Your task to perform on an android device: Open Yahoo.com Image 0: 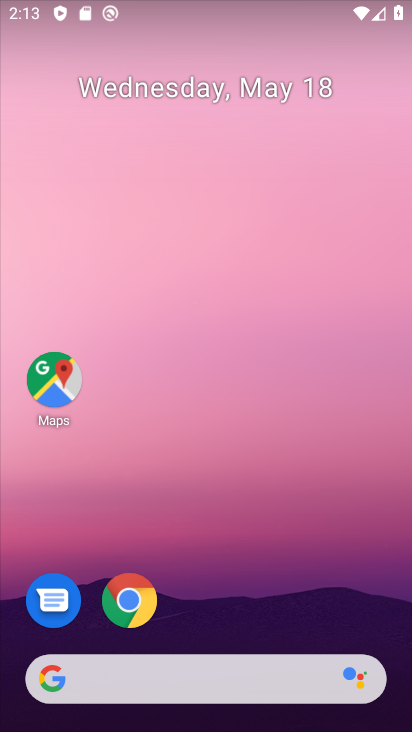
Step 0: press home button
Your task to perform on an android device: Open Yahoo.com Image 1: 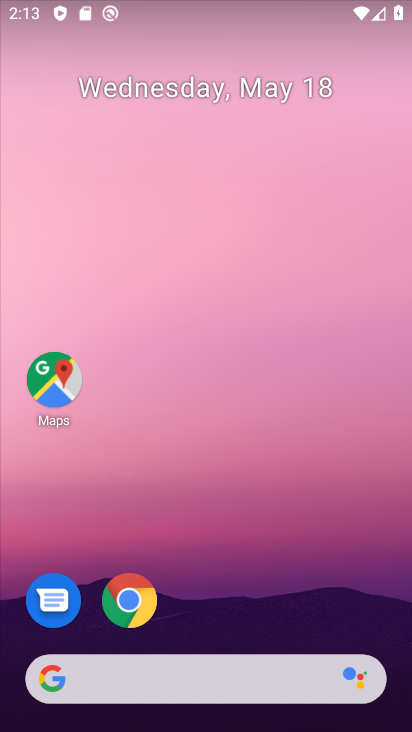
Step 1: click (138, 605)
Your task to perform on an android device: Open Yahoo.com Image 2: 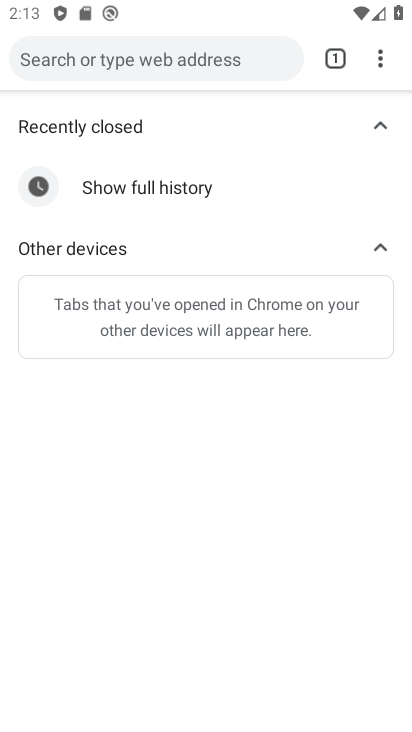
Step 2: drag from (377, 58) to (259, 112)
Your task to perform on an android device: Open Yahoo.com Image 3: 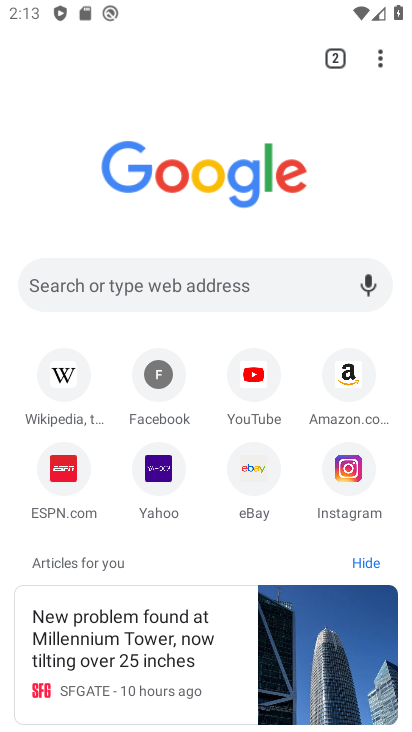
Step 3: click (154, 467)
Your task to perform on an android device: Open Yahoo.com Image 4: 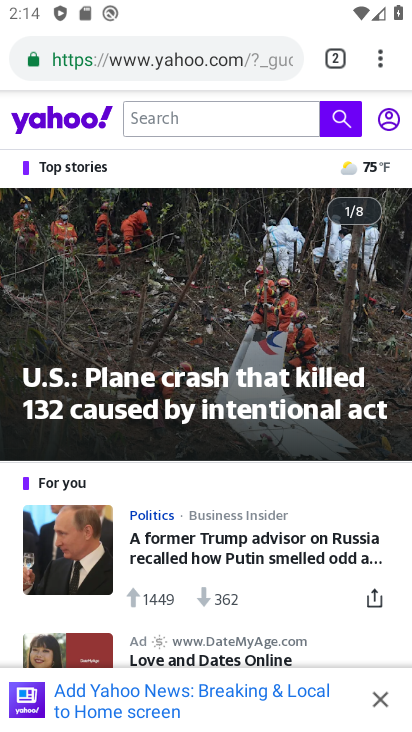
Step 4: task complete